Your task to perform on an android device: turn pop-ups on in chrome Image 0: 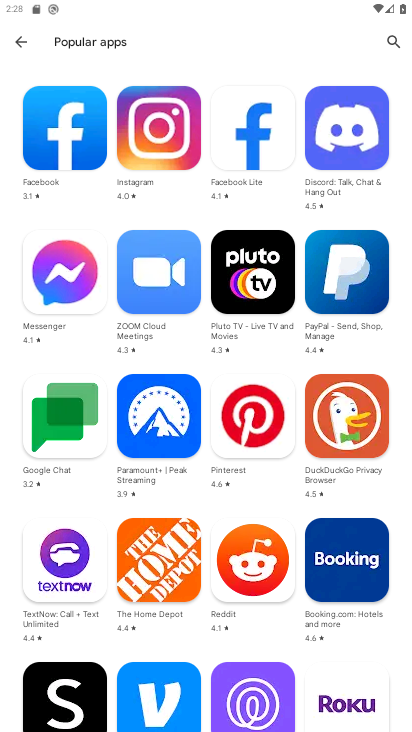
Step 0: press home button
Your task to perform on an android device: turn pop-ups on in chrome Image 1: 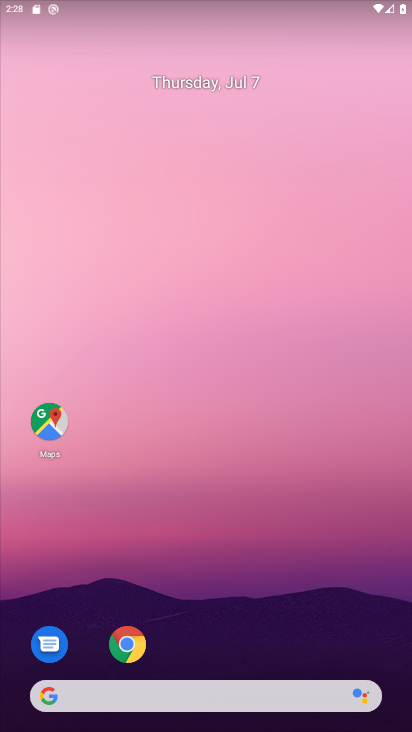
Step 1: drag from (221, 635) to (183, 44)
Your task to perform on an android device: turn pop-ups on in chrome Image 2: 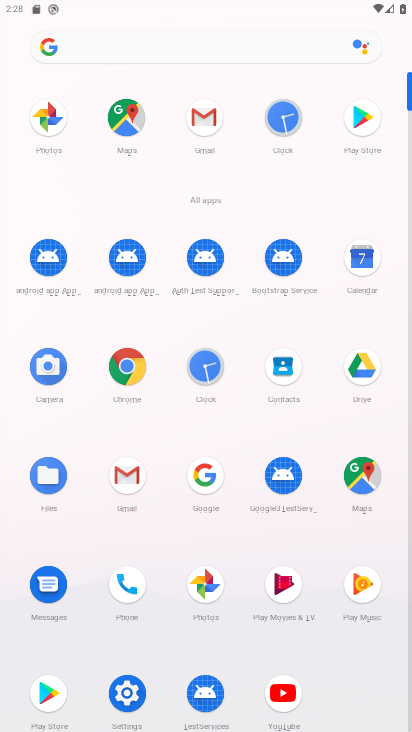
Step 2: click (116, 379)
Your task to perform on an android device: turn pop-ups on in chrome Image 3: 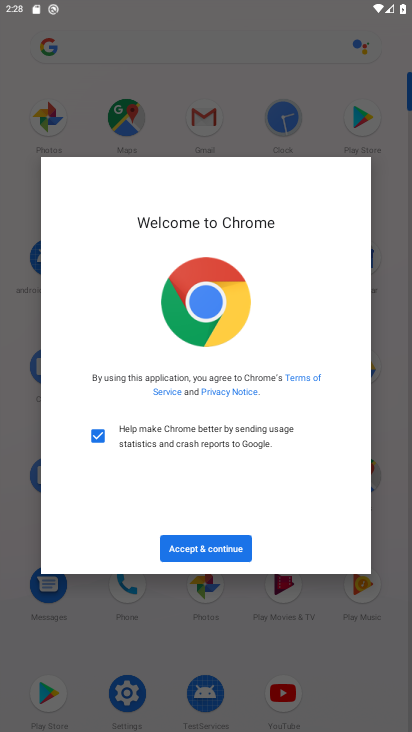
Step 3: click (221, 545)
Your task to perform on an android device: turn pop-ups on in chrome Image 4: 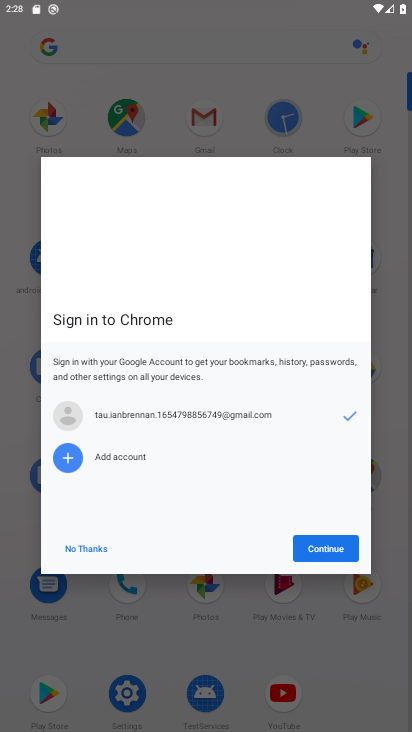
Step 4: click (286, 546)
Your task to perform on an android device: turn pop-ups on in chrome Image 5: 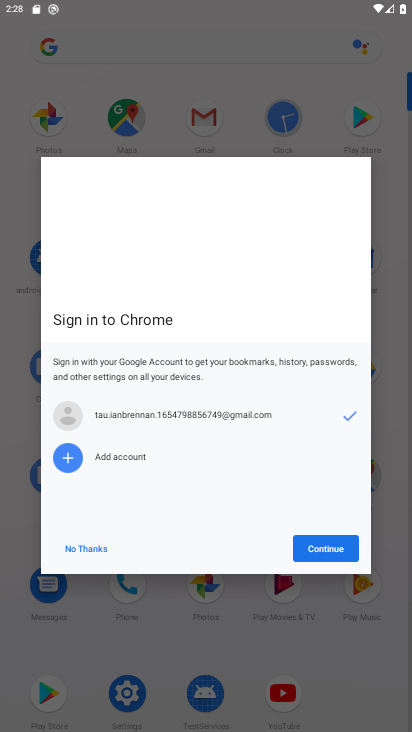
Step 5: click (317, 560)
Your task to perform on an android device: turn pop-ups on in chrome Image 6: 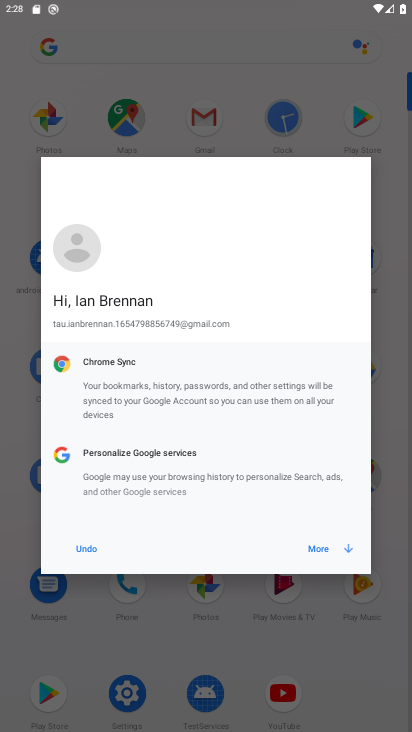
Step 6: click (317, 548)
Your task to perform on an android device: turn pop-ups on in chrome Image 7: 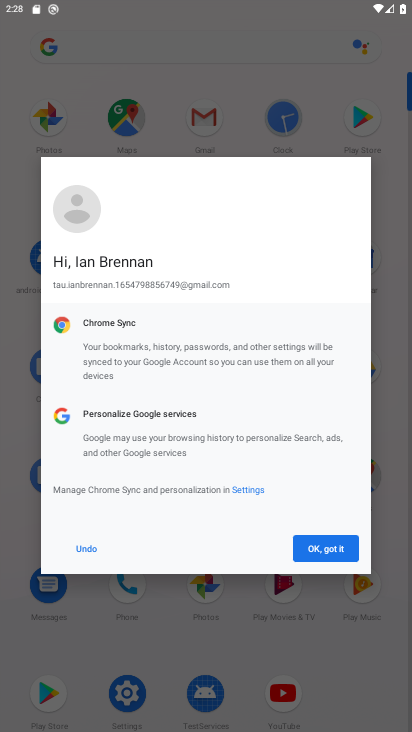
Step 7: click (317, 548)
Your task to perform on an android device: turn pop-ups on in chrome Image 8: 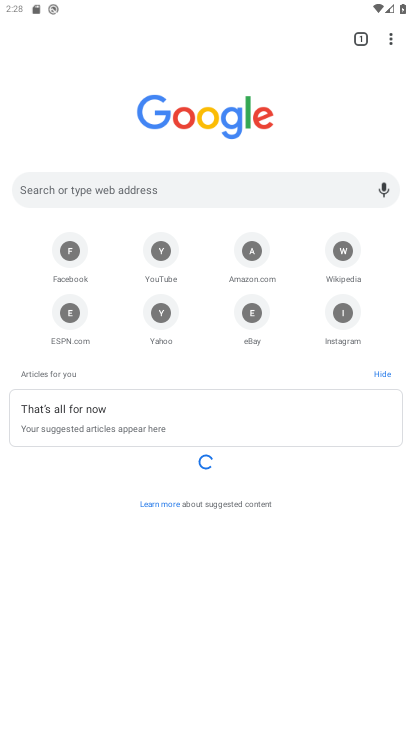
Step 8: drag from (391, 44) to (289, 322)
Your task to perform on an android device: turn pop-ups on in chrome Image 9: 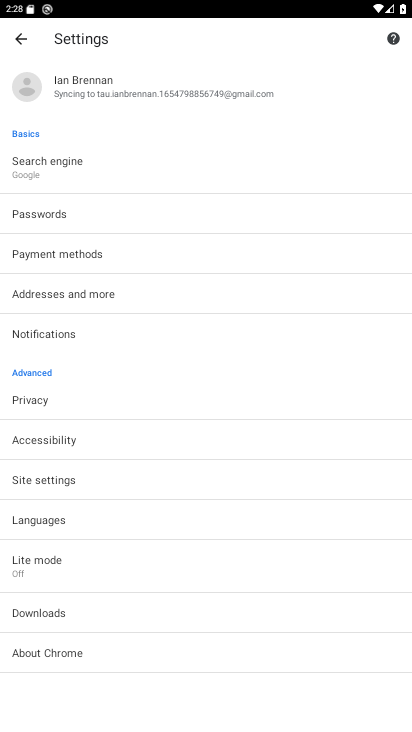
Step 9: click (105, 474)
Your task to perform on an android device: turn pop-ups on in chrome Image 10: 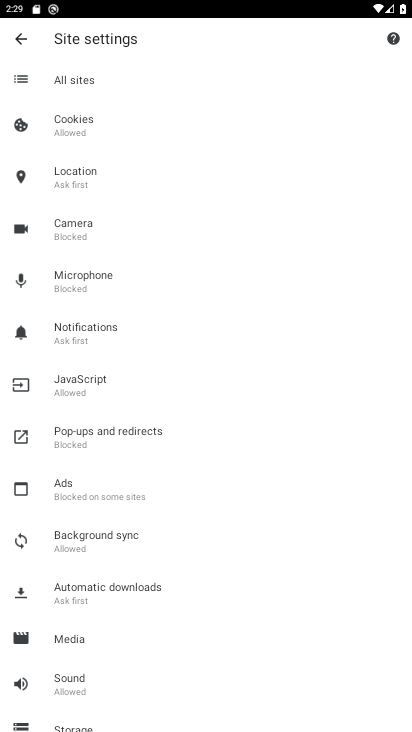
Step 10: click (116, 445)
Your task to perform on an android device: turn pop-ups on in chrome Image 11: 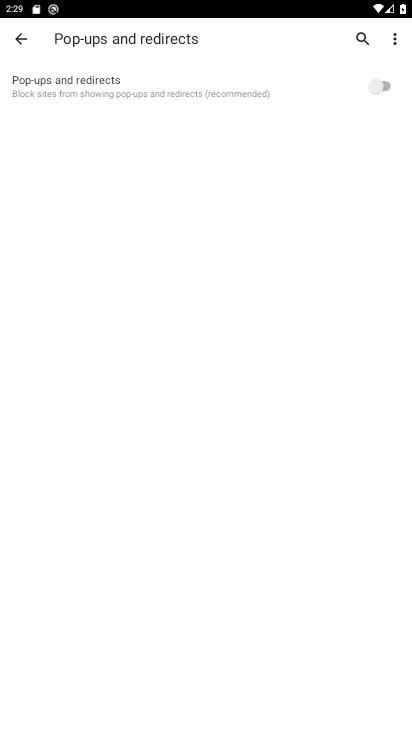
Step 11: click (394, 79)
Your task to perform on an android device: turn pop-ups on in chrome Image 12: 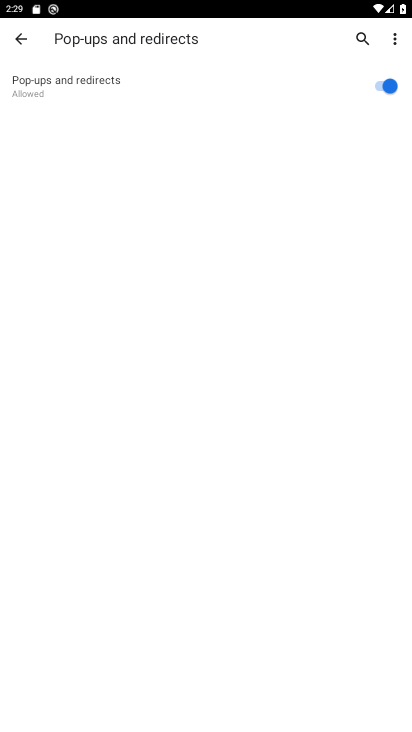
Step 12: task complete